Your task to perform on an android device: What's the weather going to be this weekend? Image 0: 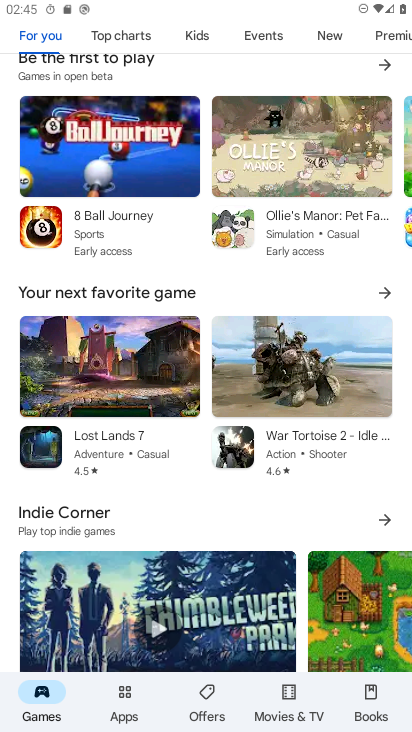
Step 0: press home button
Your task to perform on an android device: What's the weather going to be this weekend? Image 1: 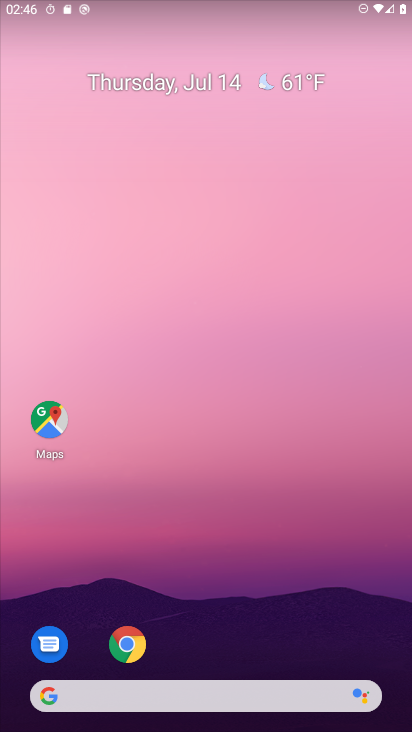
Step 1: drag from (300, 580) to (235, 119)
Your task to perform on an android device: What's the weather going to be this weekend? Image 2: 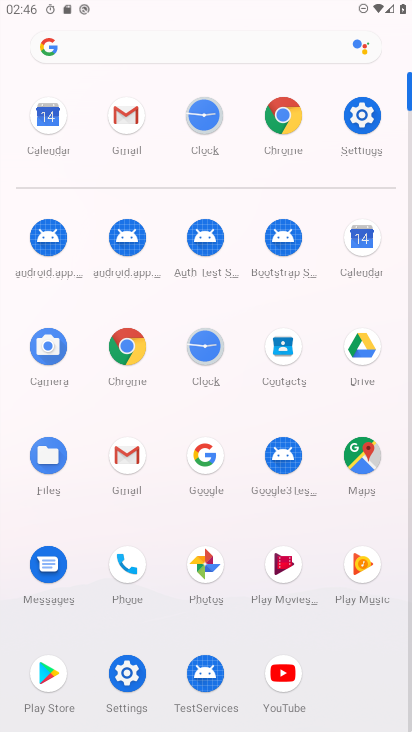
Step 2: press home button
Your task to perform on an android device: What's the weather going to be this weekend? Image 3: 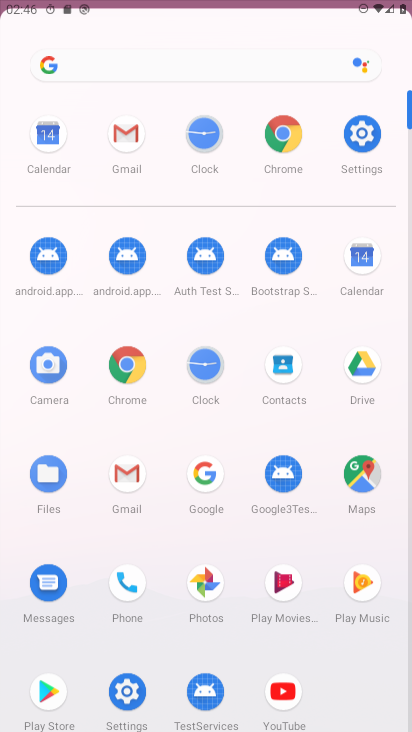
Step 3: press home button
Your task to perform on an android device: What's the weather going to be this weekend? Image 4: 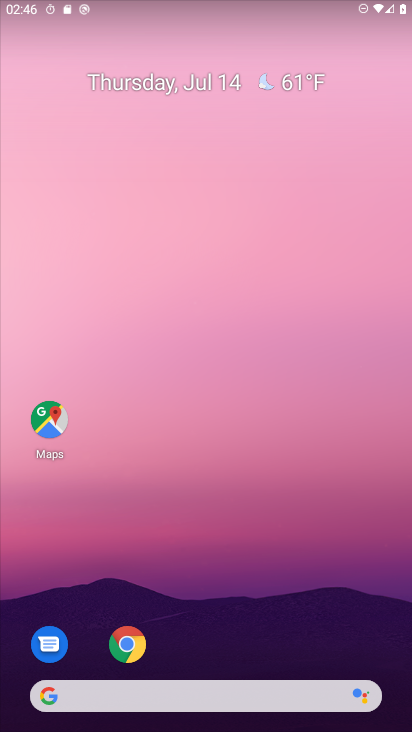
Step 4: click (309, 85)
Your task to perform on an android device: What's the weather going to be this weekend? Image 5: 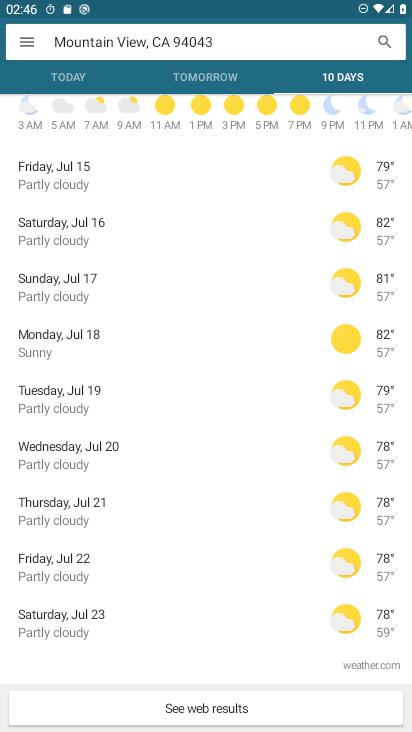
Step 5: task complete